Your task to perform on an android device: choose inbox layout in the gmail app Image 0: 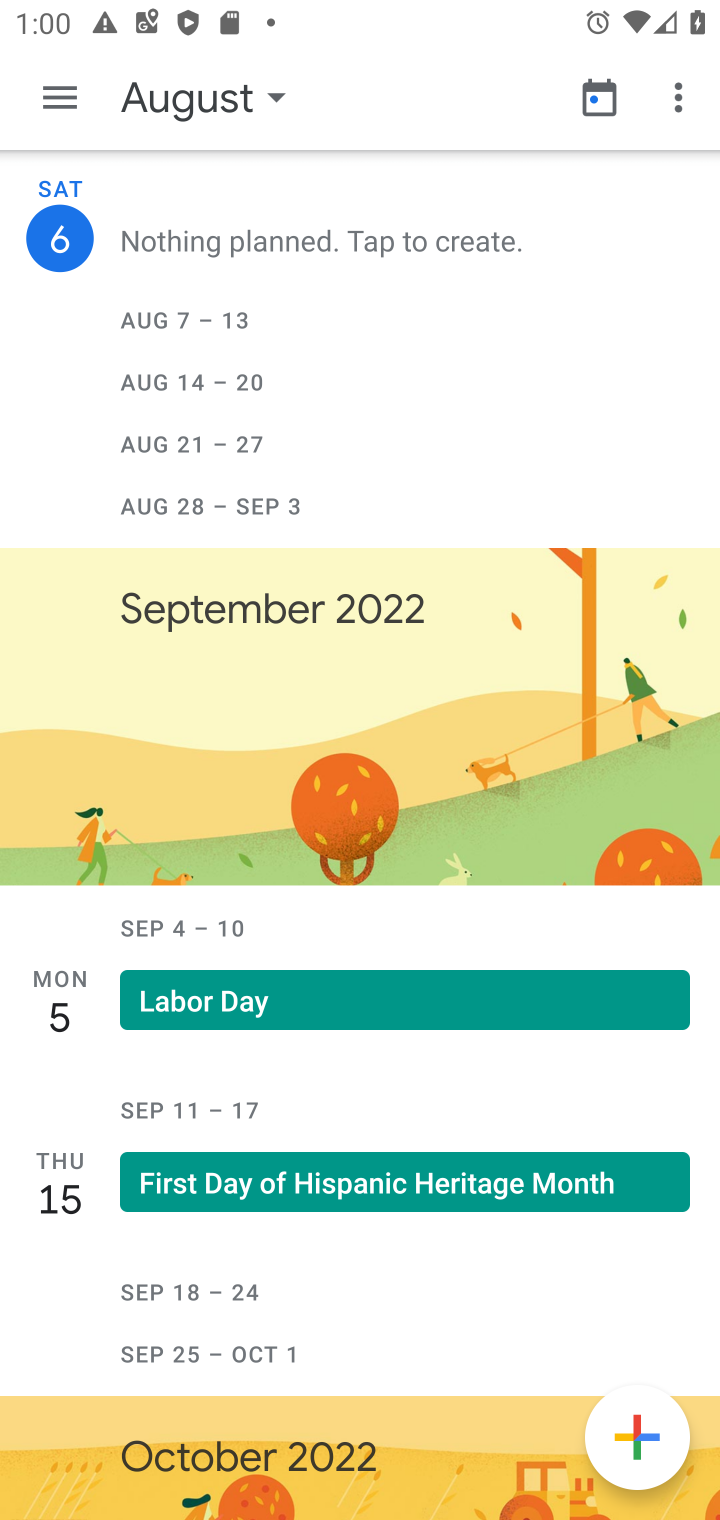
Step 0: press home button
Your task to perform on an android device: choose inbox layout in the gmail app Image 1: 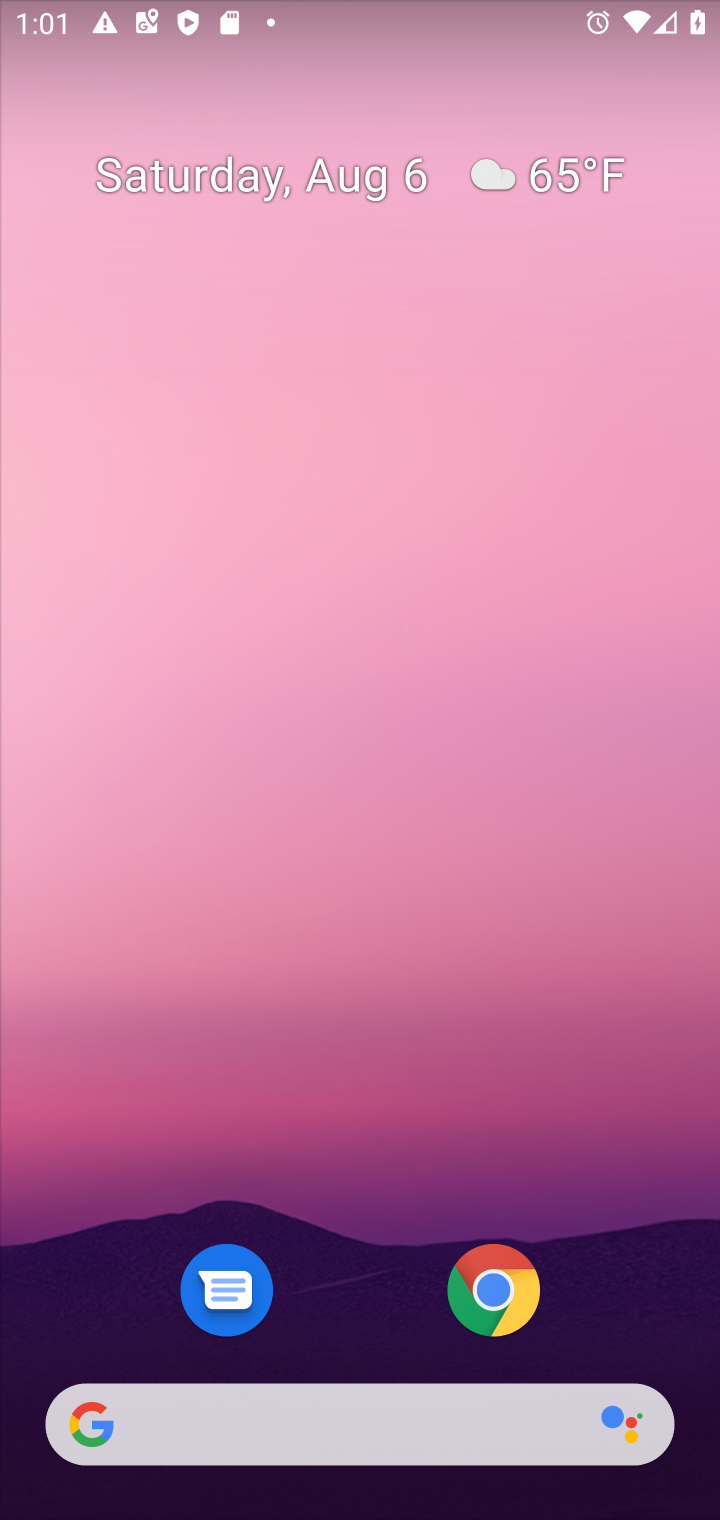
Step 1: drag from (362, 1329) to (349, 232)
Your task to perform on an android device: choose inbox layout in the gmail app Image 2: 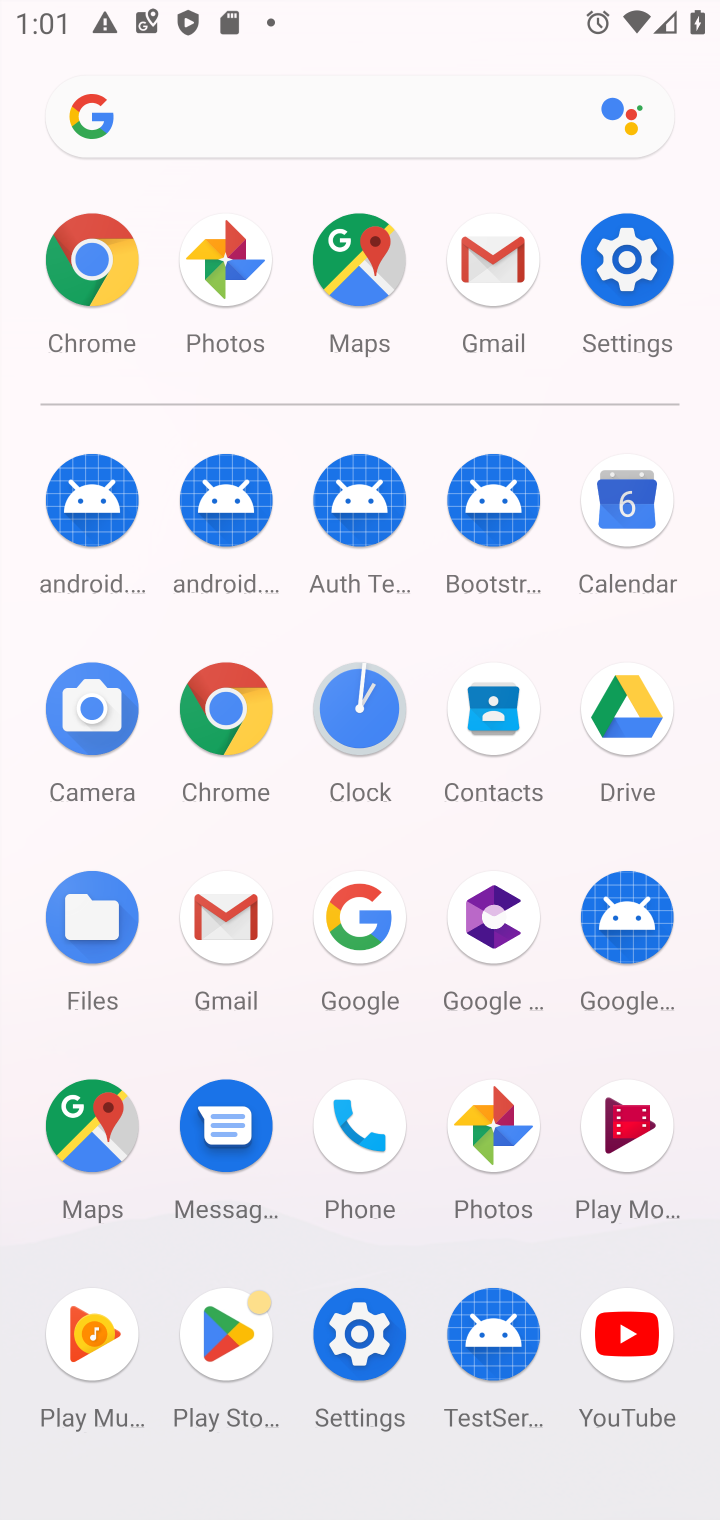
Step 2: click (224, 907)
Your task to perform on an android device: choose inbox layout in the gmail app Image 3: 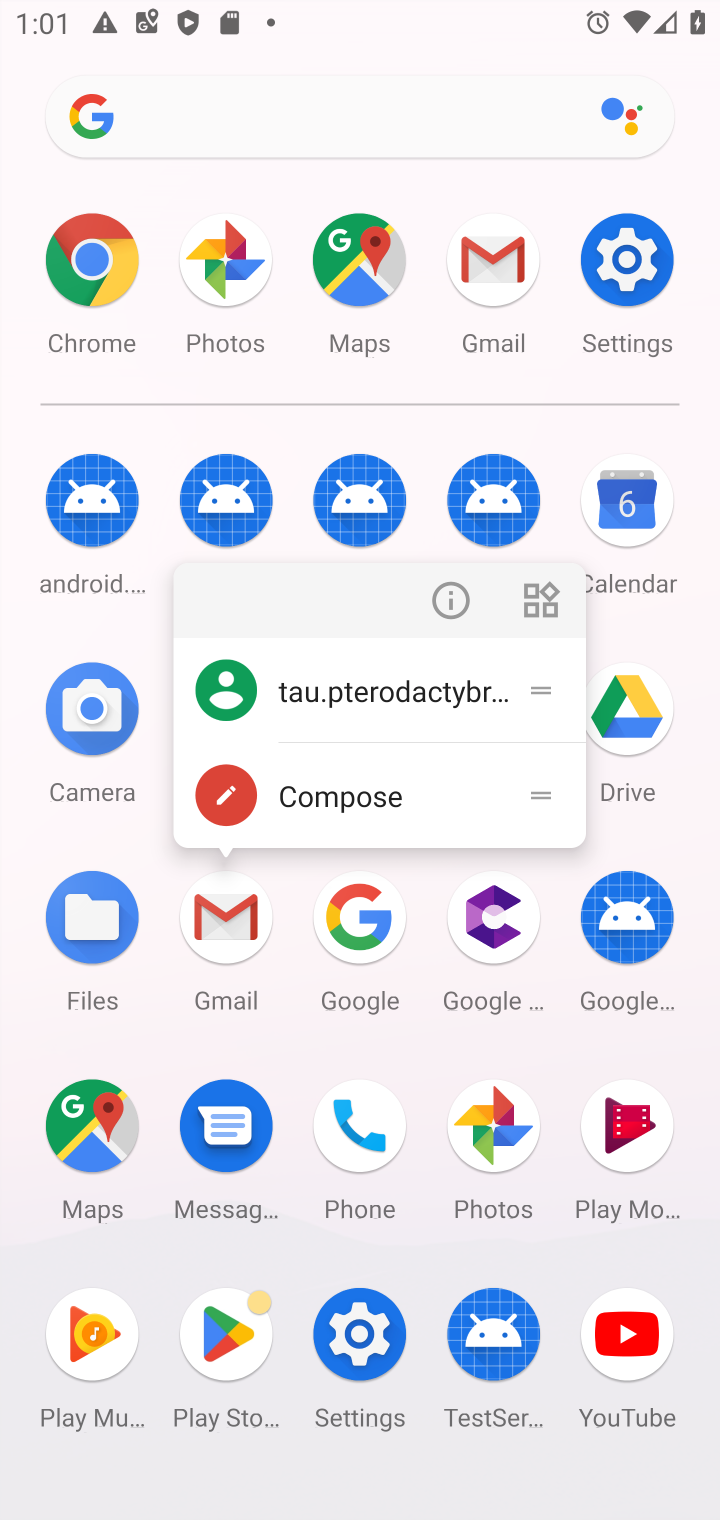
Step 3: click (215, 896)
Your task to perform on an android device: choose inbox layout in the gmail app Image 4: 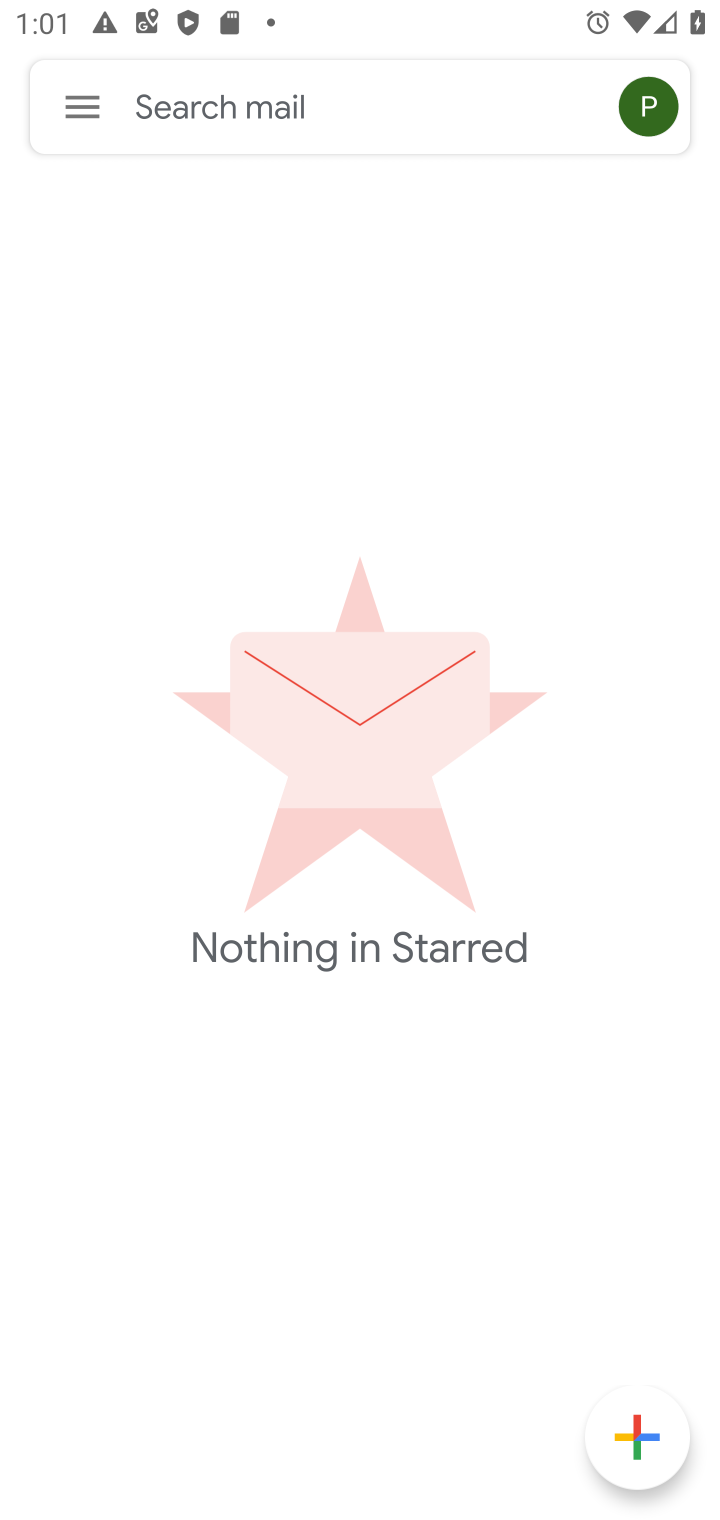
Step 4: click (68, 120)
Your task to perform on an android device: choose inbox layout in the gmail app Image 5: 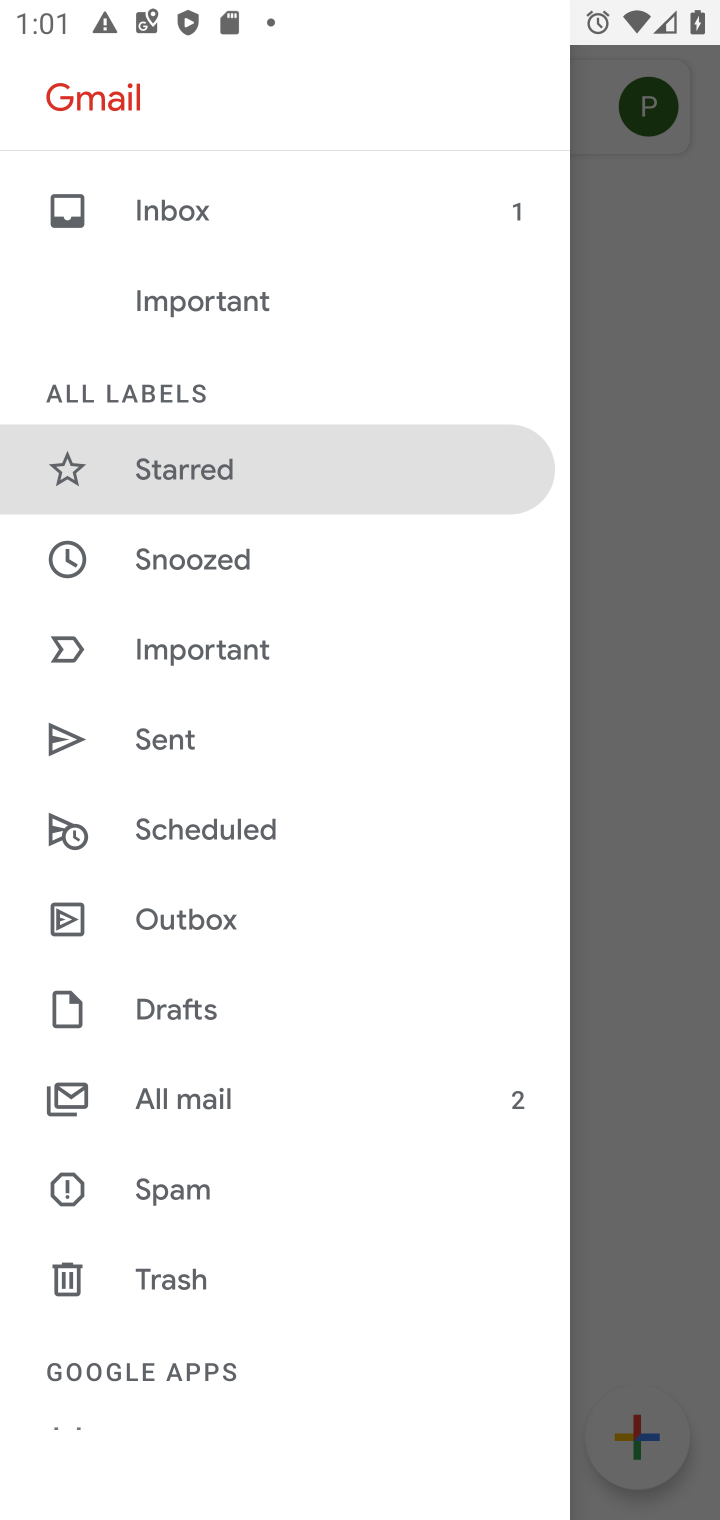
Step 5: drag from (224, 1265) to (250, 257)
Your task to perform on an android device: choose inbox layout in the gmail app Image 6: 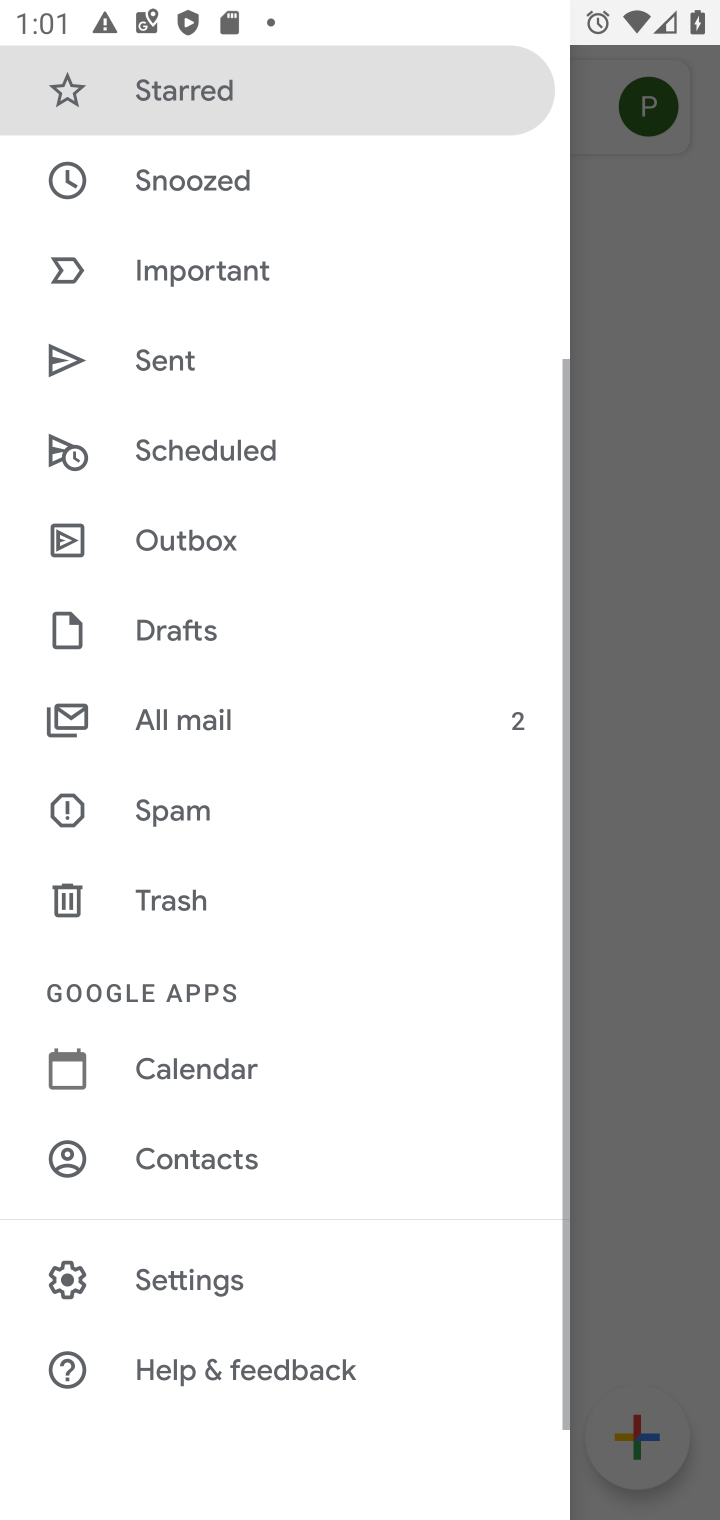
Step 6: click (237, 1262)
Your task to perform on an android device: choose inbox layout in the gmail app Image 7: 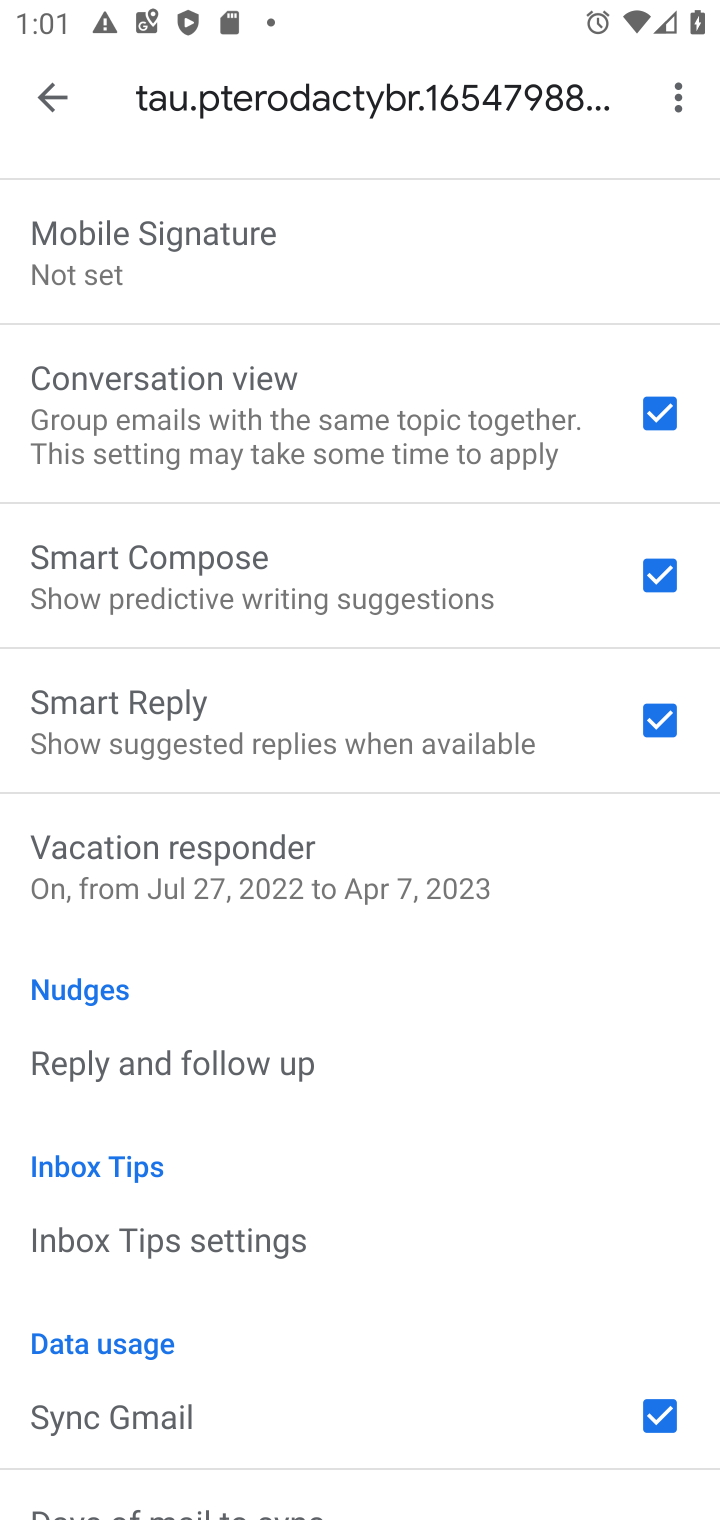
Step 7: drag from (203, 255) to (245, 1445)
Your task to perform on an android device: choose inbox layout in the gmail app Image 8: 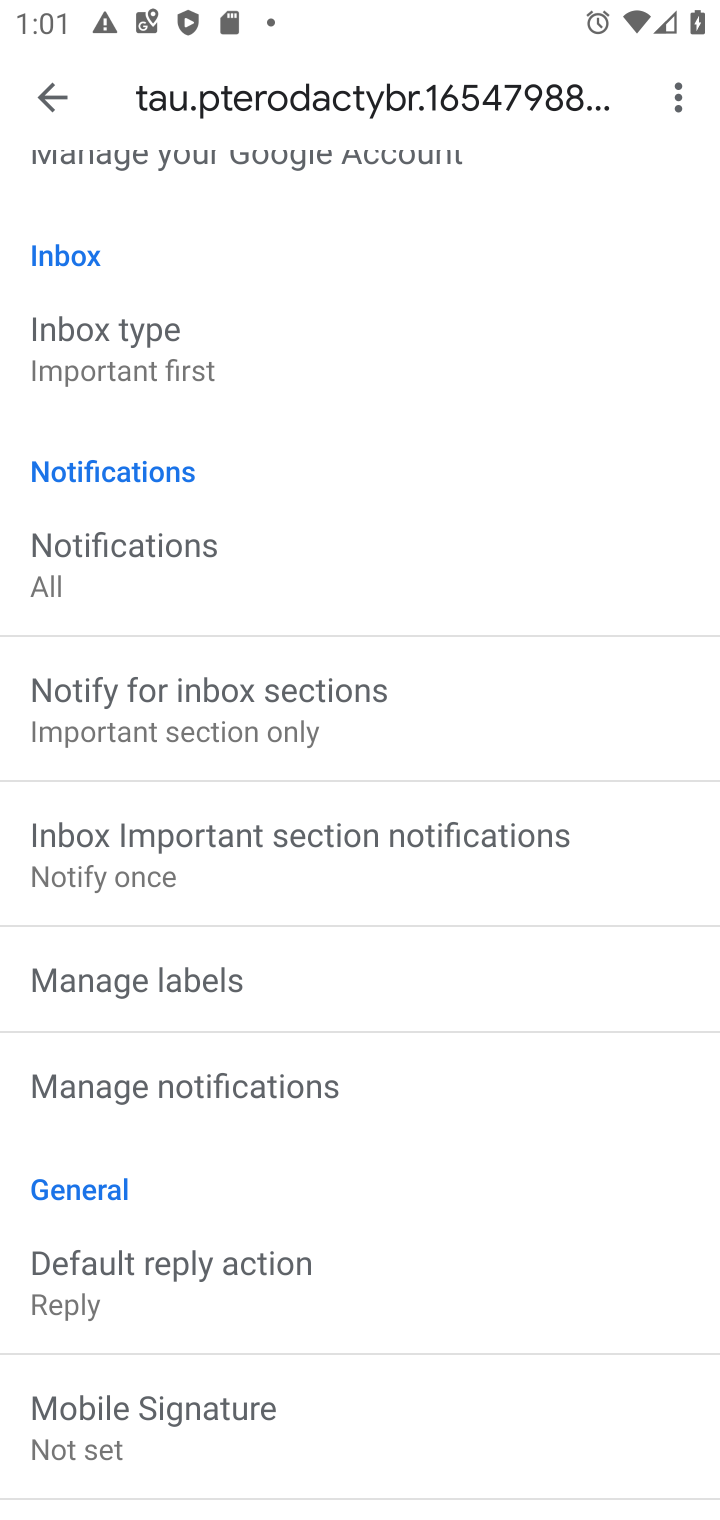
Step 8: drag from (206, 303) to (219, 1283)
Your task to perform on an android device: choose inbox layout in the gmail app Image 9: 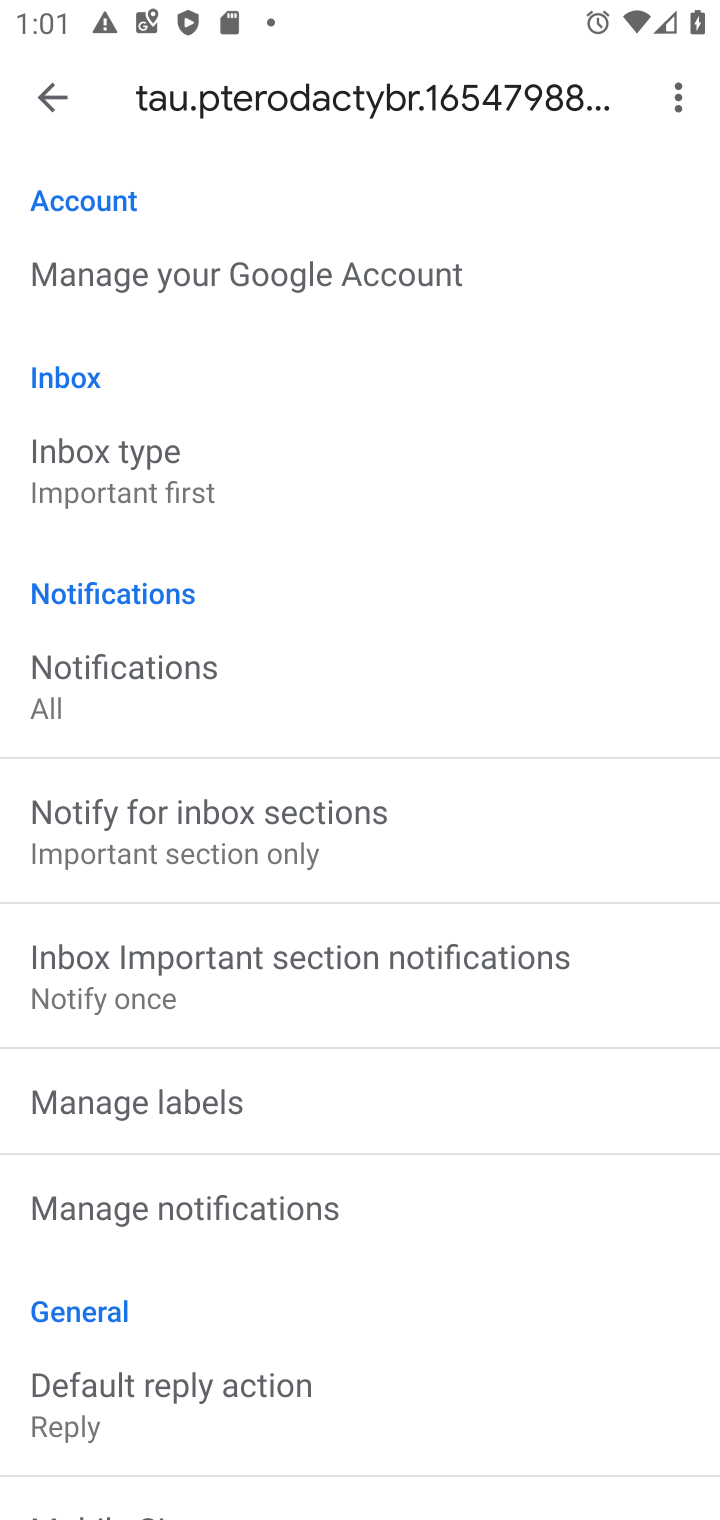
Step 9: click (245, 465)
Your task to perform on an android device: choose inbox layout in the gmail app Image 10: 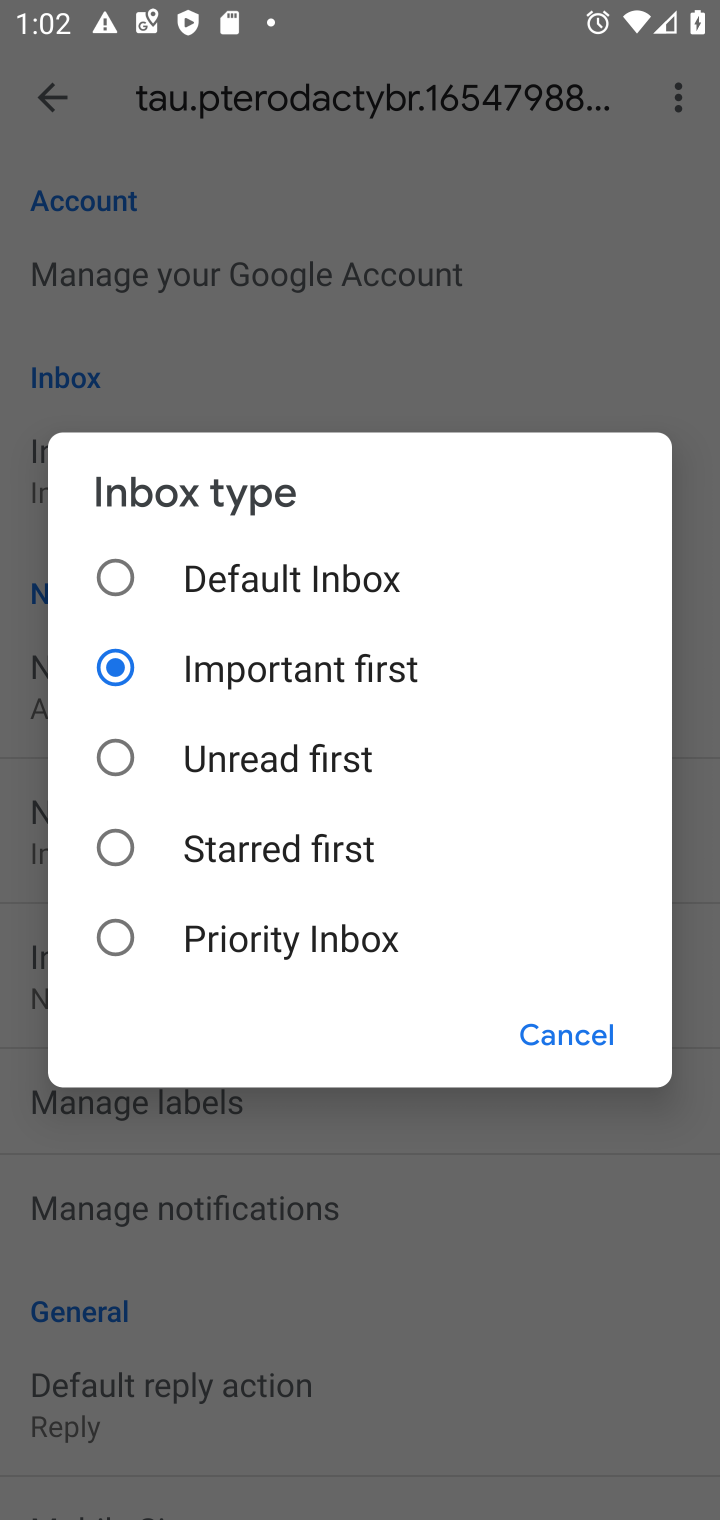
Step 10: click (117, 571)
Your task to perform on an android device: choose inbox layout in the gmail app Image 11: 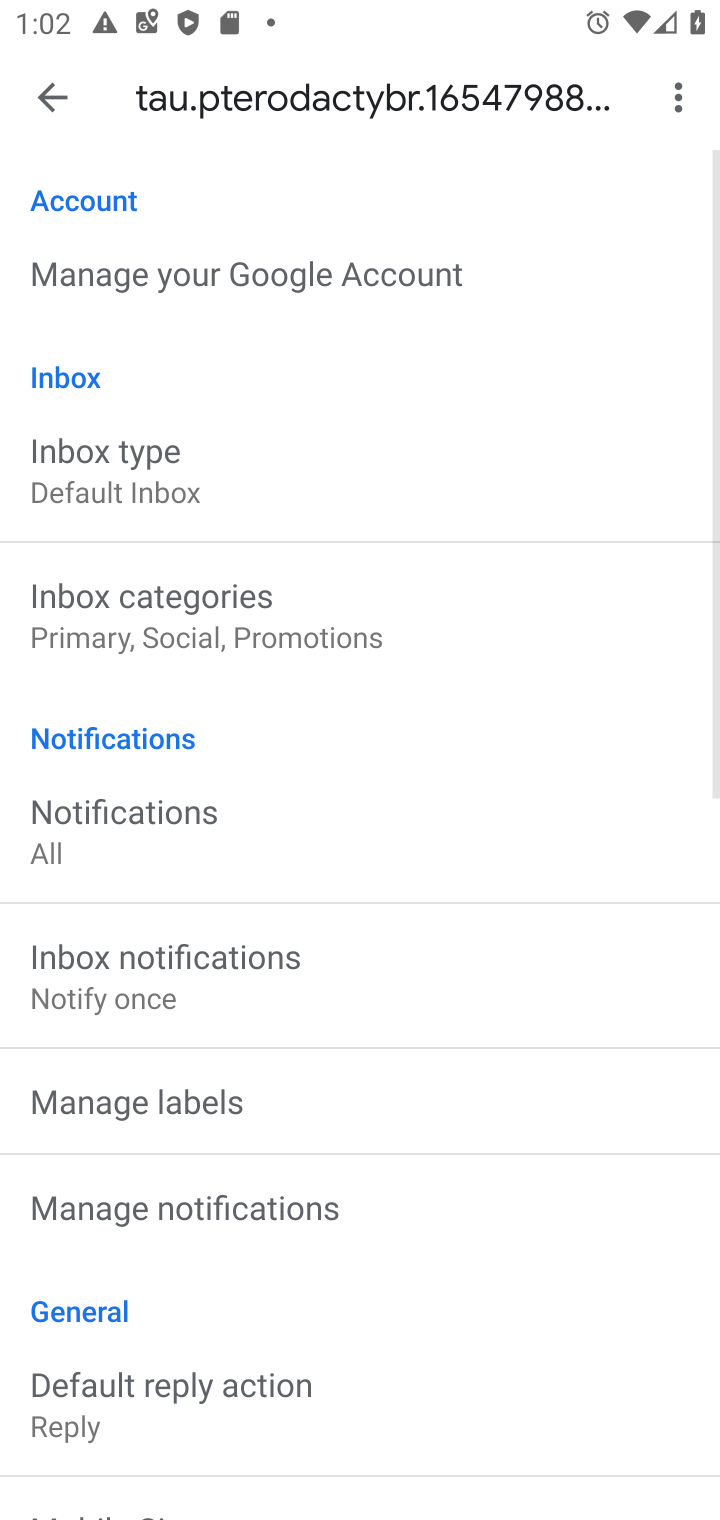
Step 11: task complete